Your task to perform on an android device: change text size in settings app Image 0: 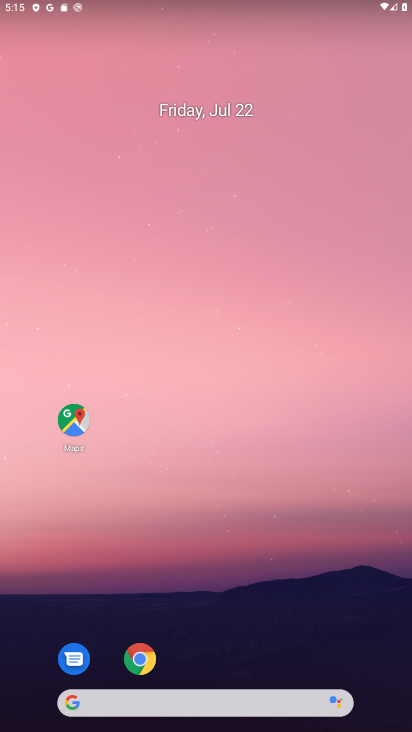
Step 0: press home button
Your task to perform on an android device: change text size in settings app Image 1: 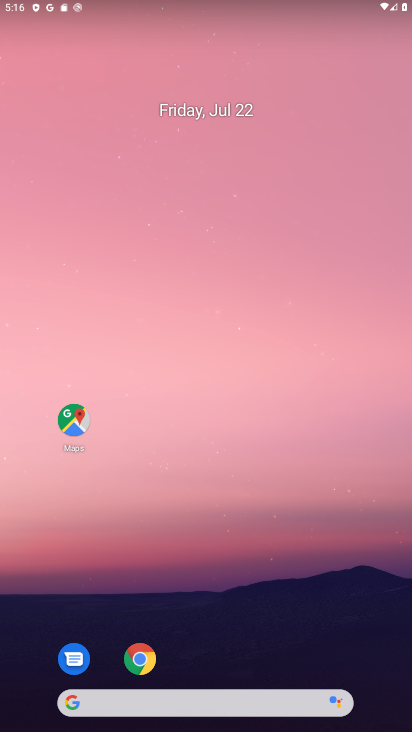
Step 1: drag from (214, 663) to (262, 0)
Your task to perform on an android device: change text size in settings app Image 2: 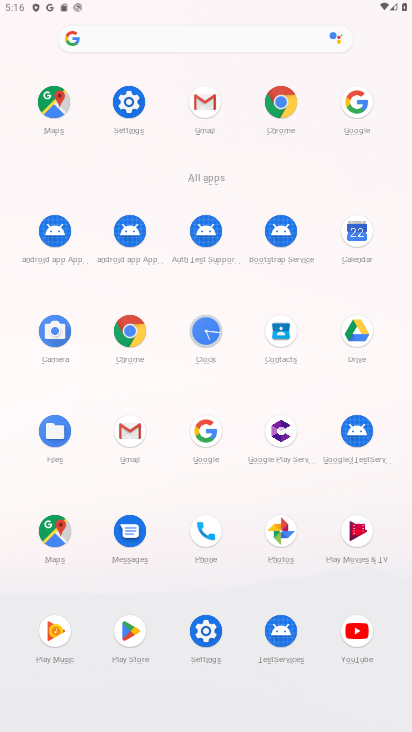
Step 2: click (122, 94)
Your task to perform on an android device: change text size in settings app Image 3: 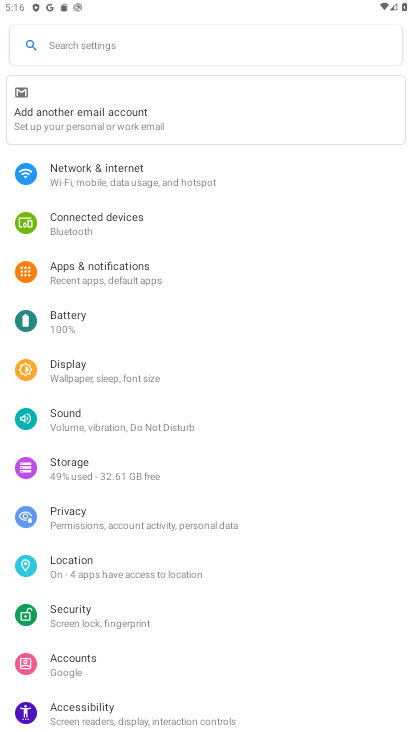
Step 3: click (96, 365)
Your task to perform on an android device: change text size in settings app Image 4: 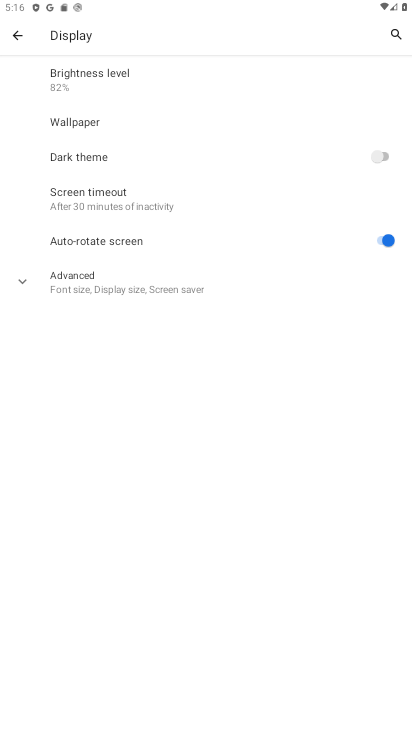
Step 4: click (26, 281)
Your task to perform on an android device: change text size in settings app Image 5: 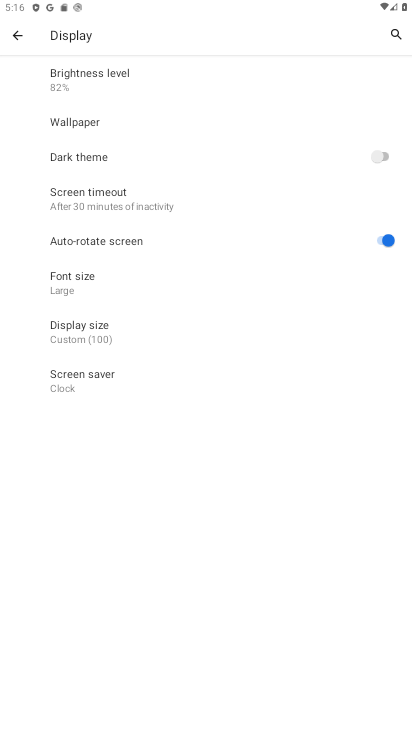
Step 5: click (85, 284)
Your task to perform on an android device: change text size in settings app Image 6: 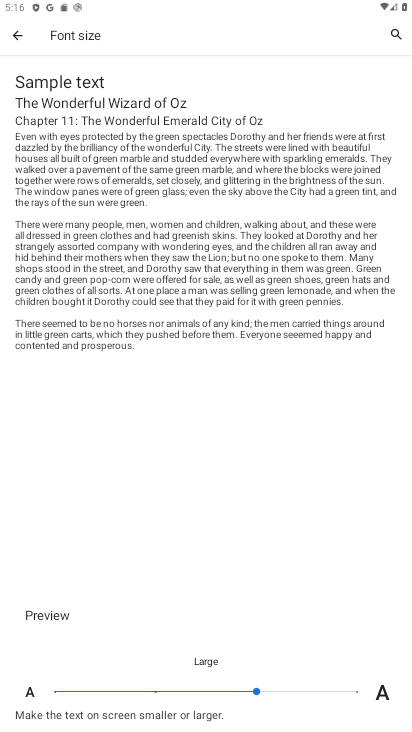
Step 6: click (356, 690)
Your task to perform on an android device: change text size in settings app Image 7: 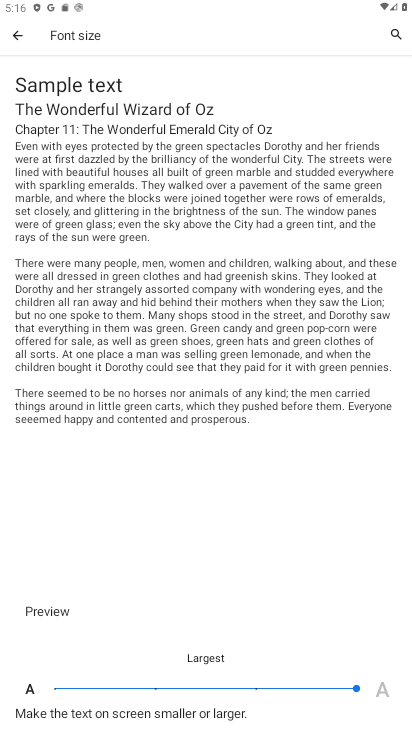
Step 7: task complete